Your task to perform on an android device: What's on Reddit this week Image 0: 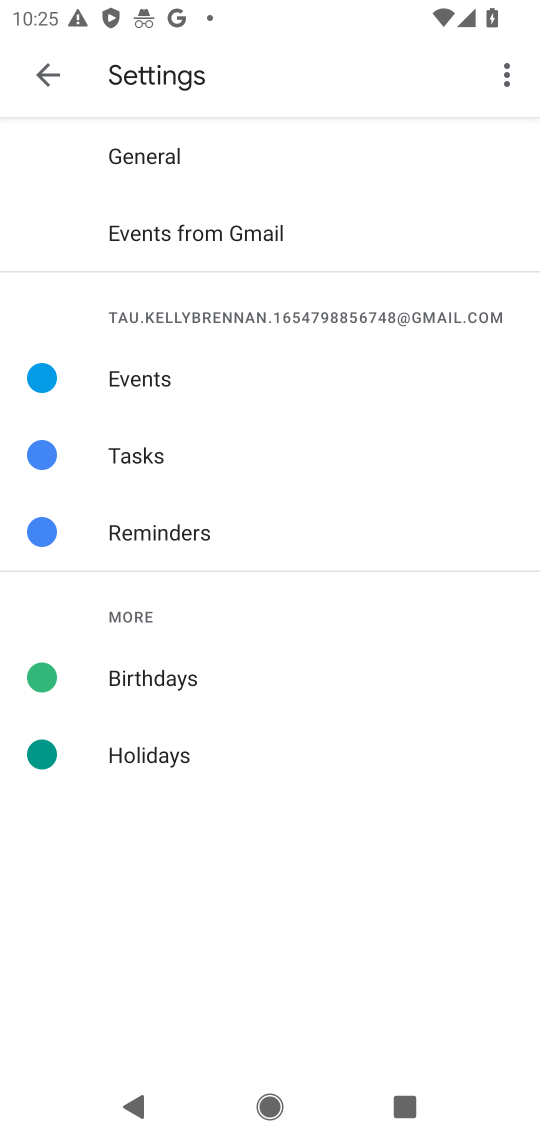
Step 0: press home button
Your task to perform on an android device: What's on Reddit this week Image 1: 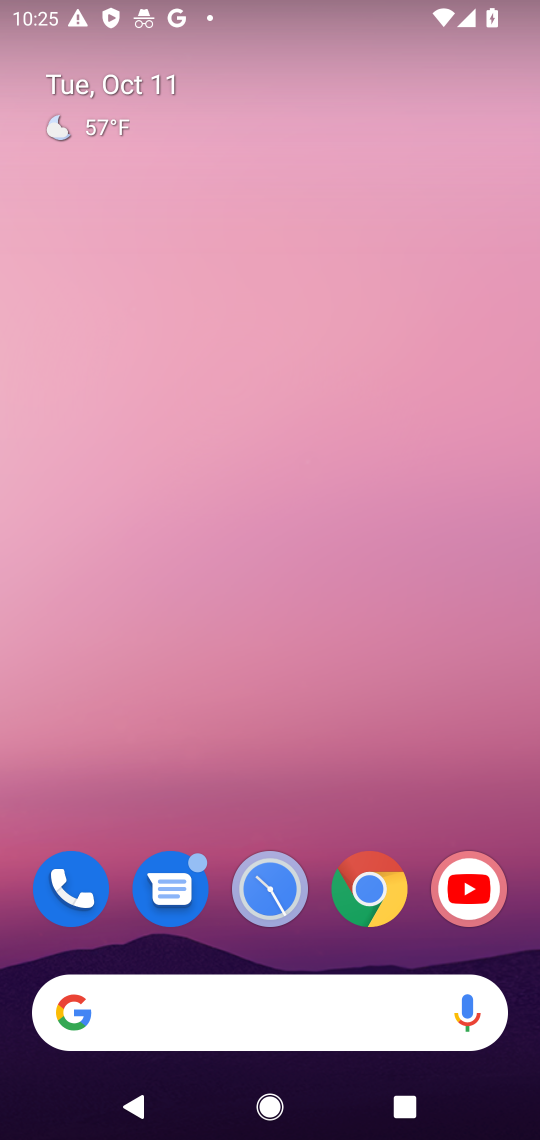
Step 1: click (161, 1031)
Your task to perform on an android device: What's on Reddit this week Image 2: 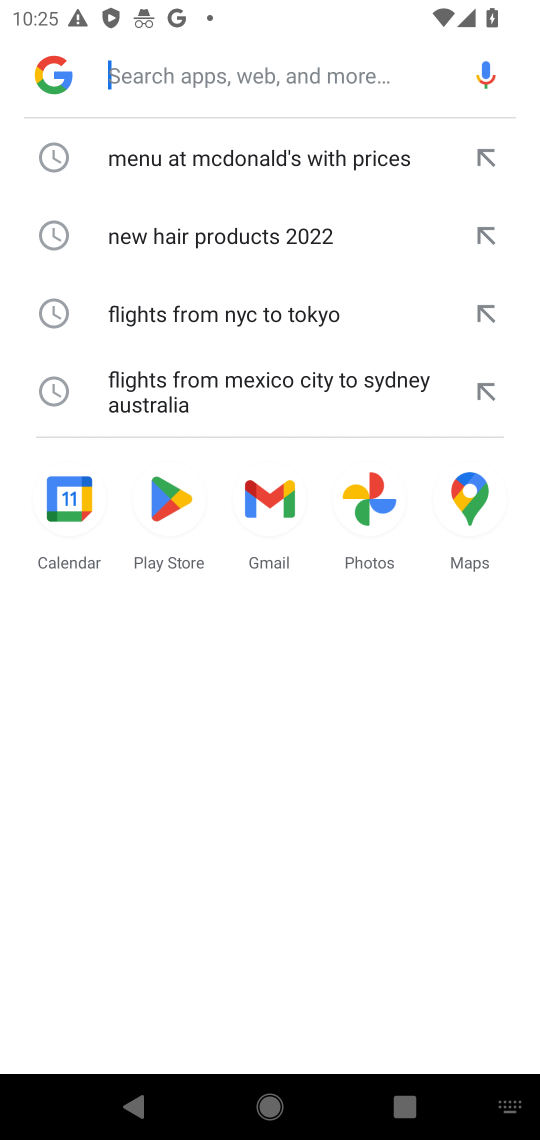
Step 2: click (194, 78)
Your task to perform on an android device: What's on Reddit this week Image 3: 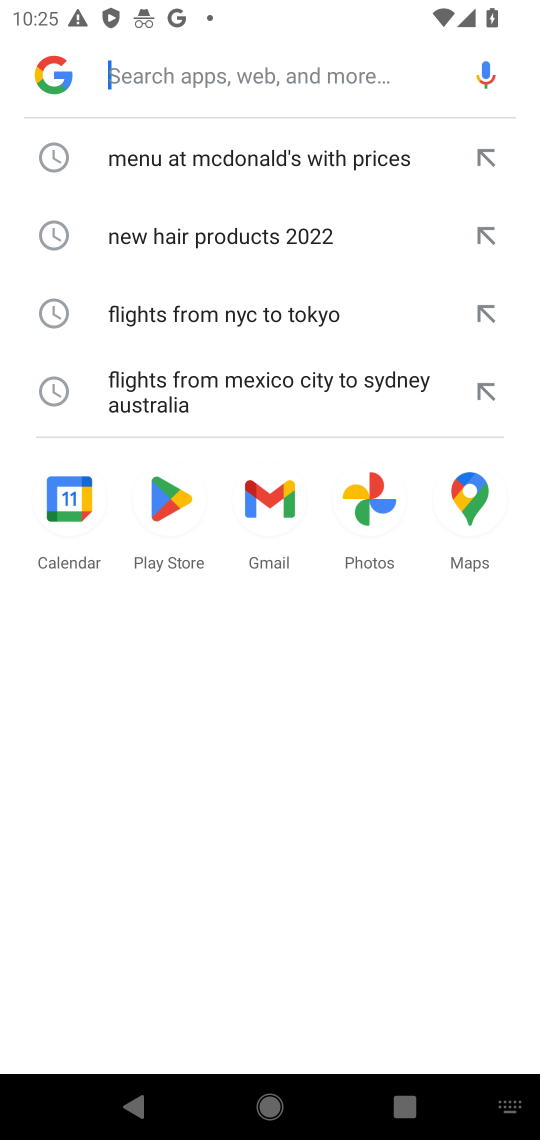
Step 3: type " Reddit this week"
Your task to perform on an android device: What's on Reddit this week Image 4: 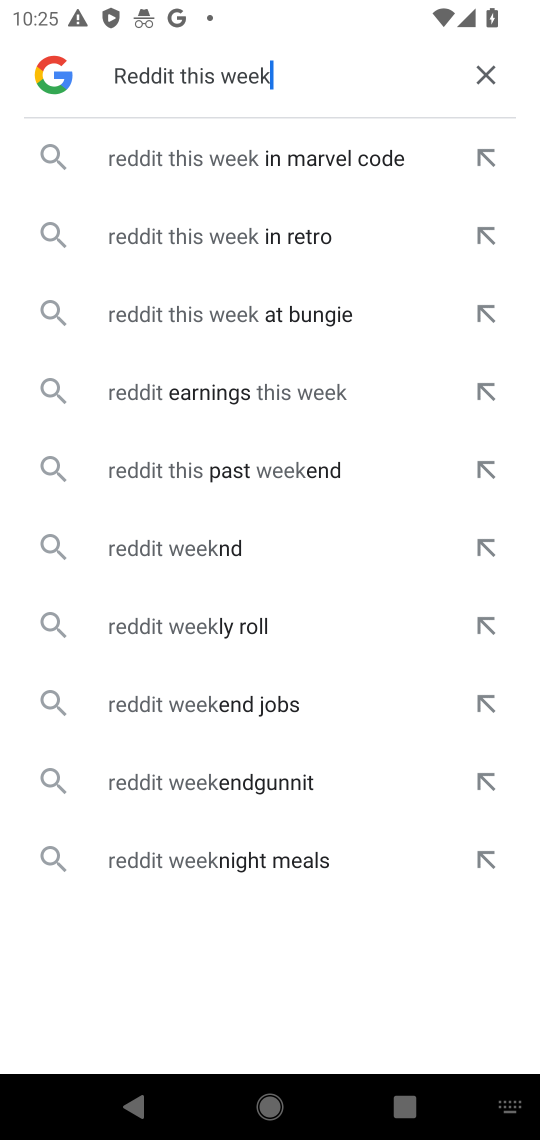
Step 4: click (205, 155)
Your task to perform on an android device: What's on Reddit this week Image 5: 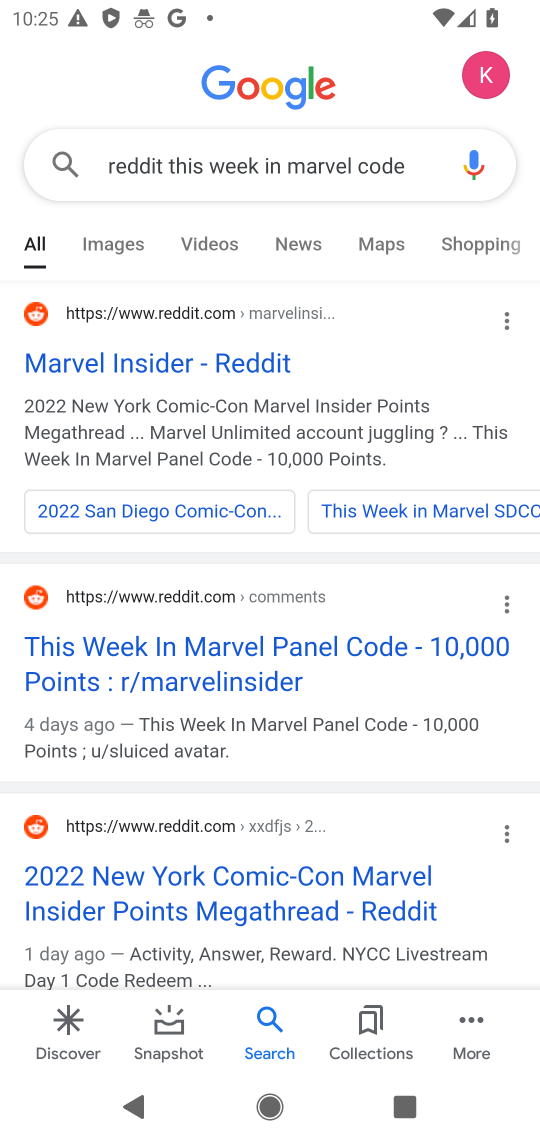
Step 5: task complete